Your task to perform on an android device: Go to Reddit.com Image 0: 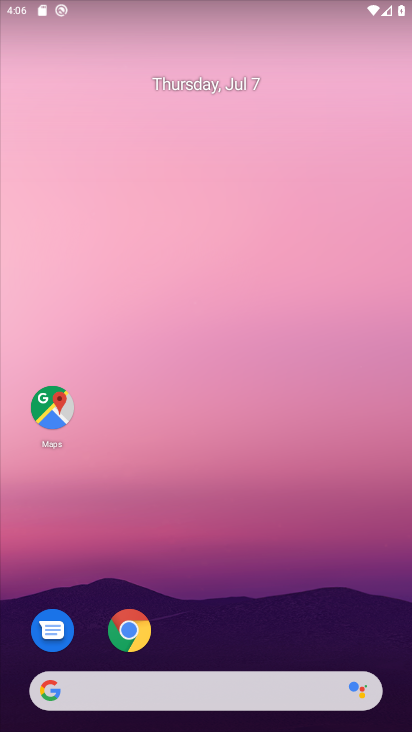
Step 0: drag from (210, 647) to (337, 105)
Your task to perform on an android device: Go to Reddit.com Image 1: 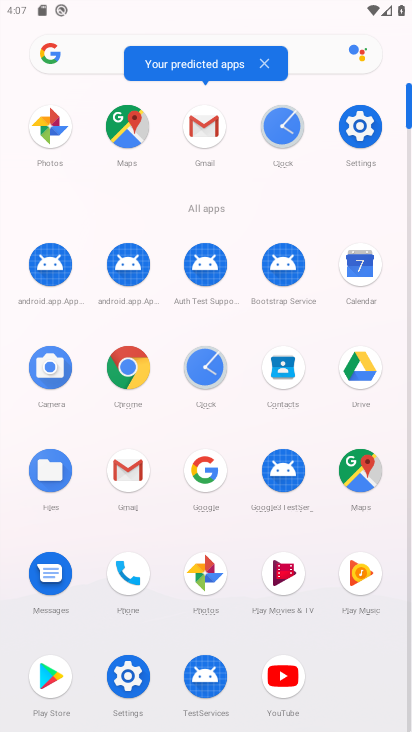
Step 1: click (122, 365)
Your task to perform on an android device: Go to Reddit.com Image 2: 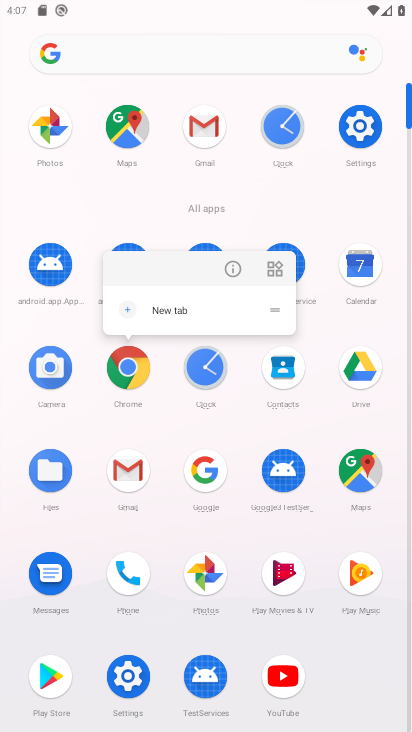
Step 2: click (123, 389)
Your task to perform on an android device: Go to Reddit.com Image 3: 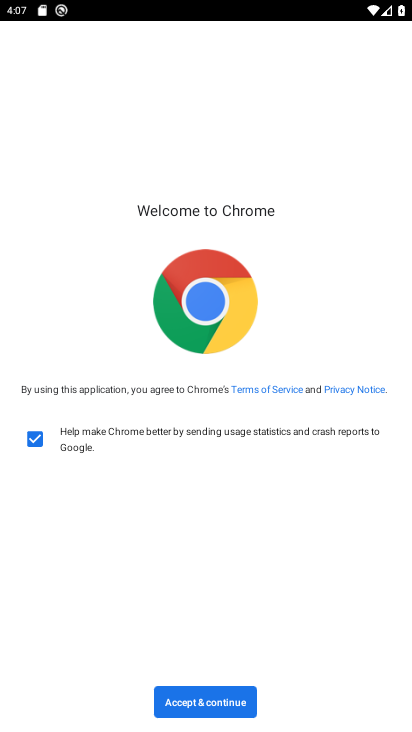
Step 3: click (187, 707)
Your task to perform on an android device: Go to Reddit.com Image 4: 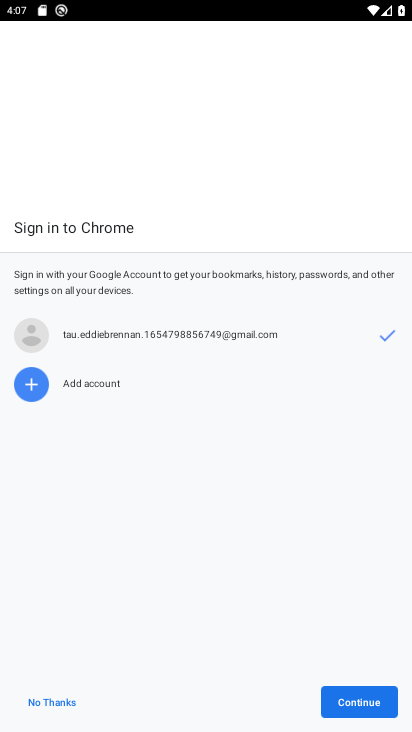
Step 4: click (348, 693)
Your task to perform on an android device: Go to Reddit.com Image 5: 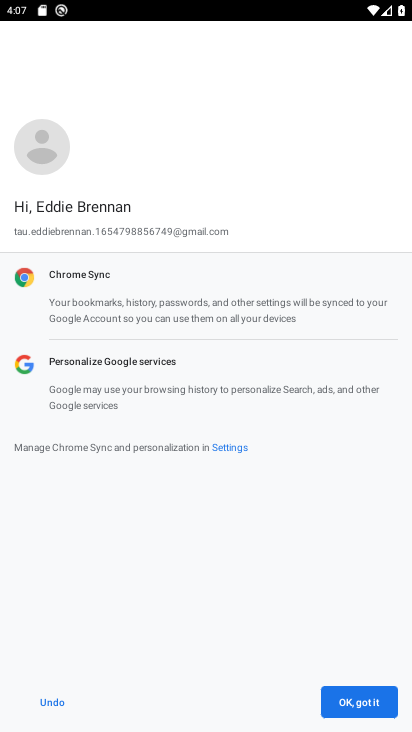
Step 5: click (354, 694)
Your task to perform on an android device: Go to Reddit.com Image 6: 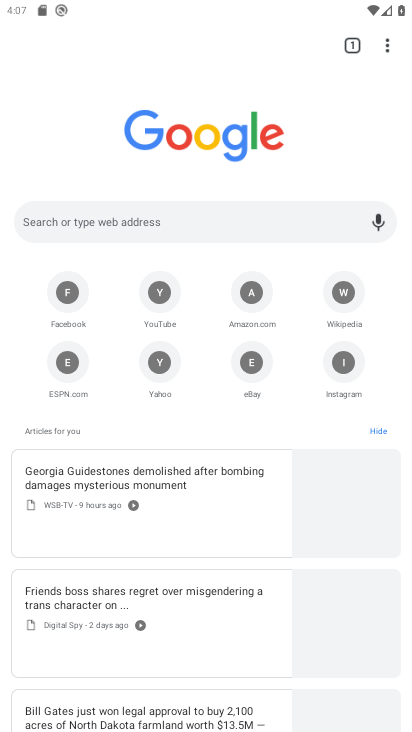
Step 6: click (137, 224)
Your task to perform on an android device: Go to Reddit.com Image 7: 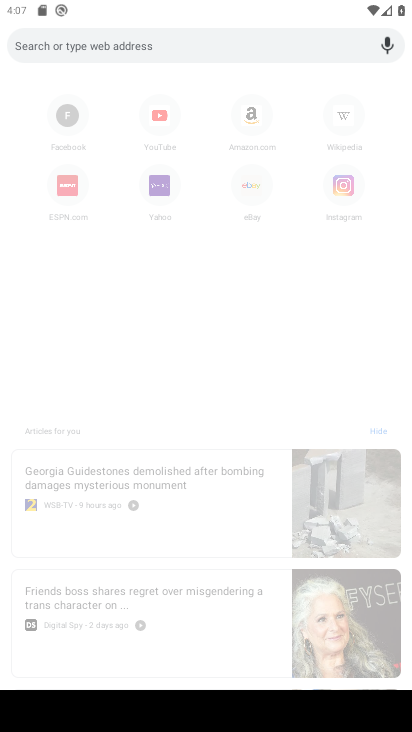
Step 7: type "Reddit.com"
Your task to perform on an android device: Go to Reddit.com Image 8: 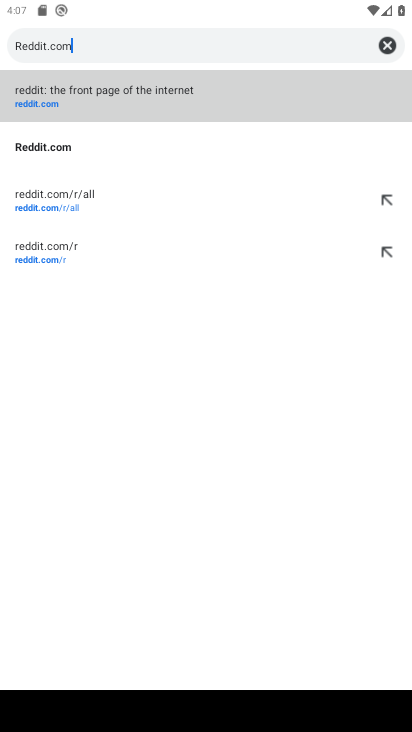
Step 8: click (69, 139)
Your task to perform on an android device: Go to Reddit.com Image 9: 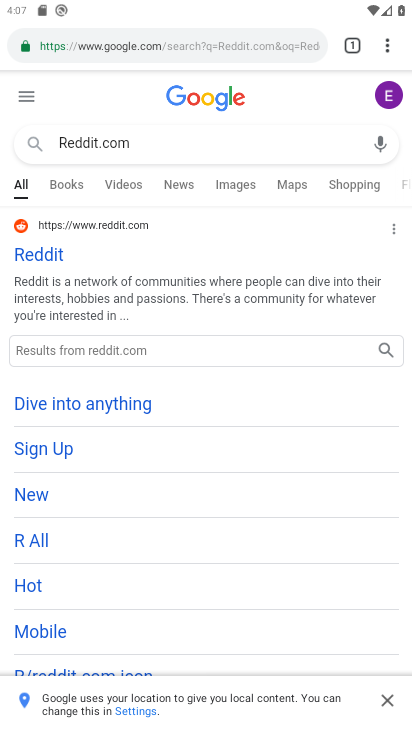
Step 9: click (40, 250)
Your task to perform on an android device: Go to Reddit.com Image 10: 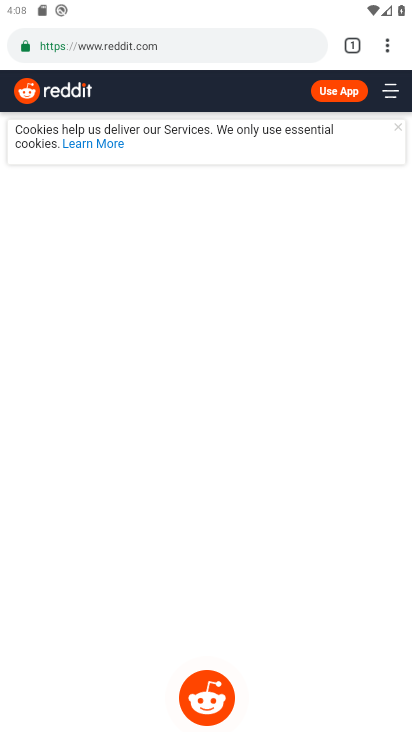
Step 10: task complete